Your task to perform on an android device: Open Youtube and go to "Your channel" Image 0: 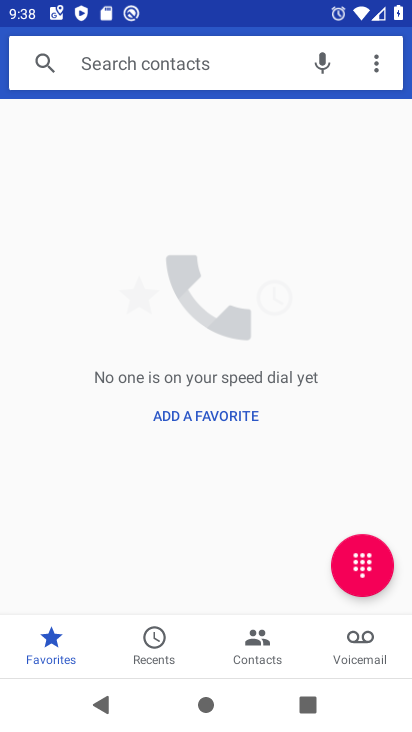
Step 0: press home button
Your task to perform on an android device: Open Youtube and go to "Your channel" Image 1: 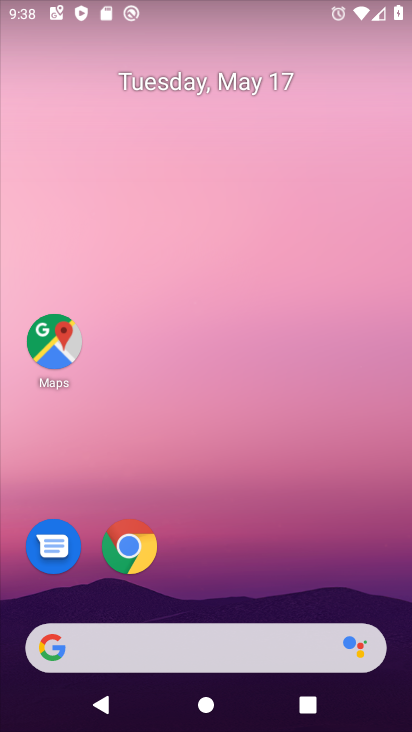
Step 1: drag from (238, 560) to (274, 22)
Your task to perform on an android device: Open Youtube and go to "Your channel" Image 2: 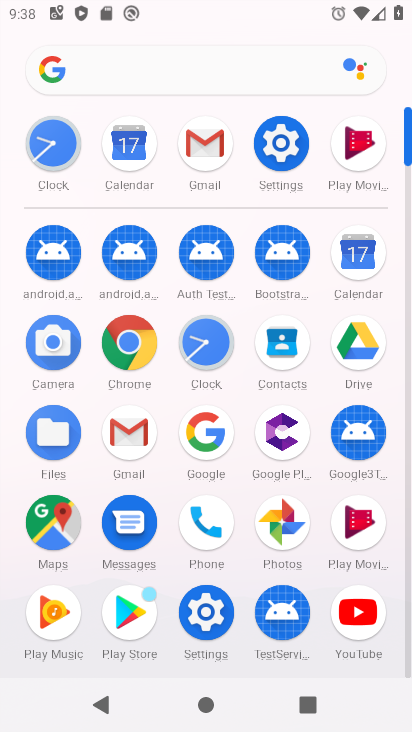
Step 2: click (345, 621)
Your task to perform on an android device: Open Youtube and go to "Your channel" Image 3: 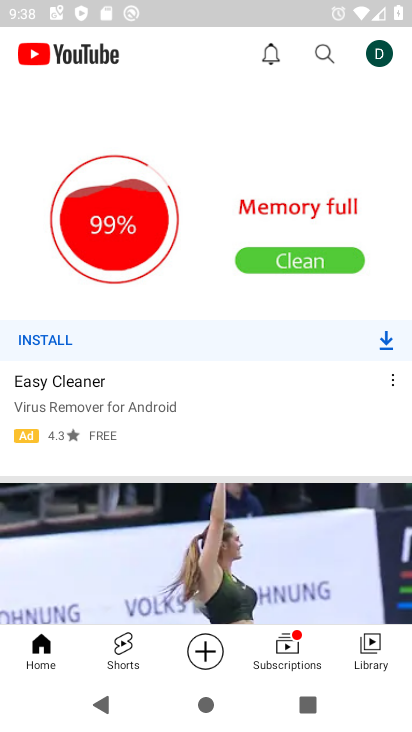
Step 3: click (386, 61)
Your task to perform on an android device: Open Youtube and go to "Your channel" Image 4: 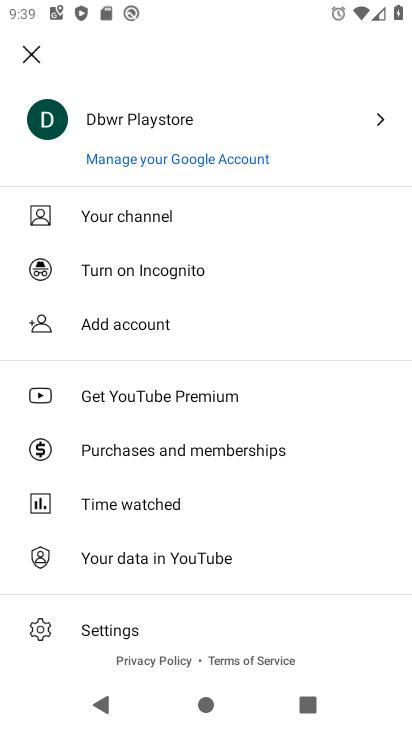
Step 4: click (150, 205)
Your task to perform on an android device: Open Youtube and go to "Your channel" Image 5: 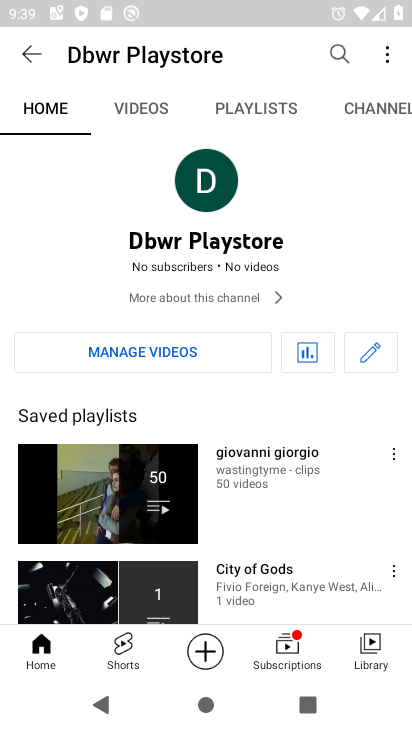
Step 5: task complete